Your task to perform on an android device: Open calendar and show me the first week of next month Image 0: 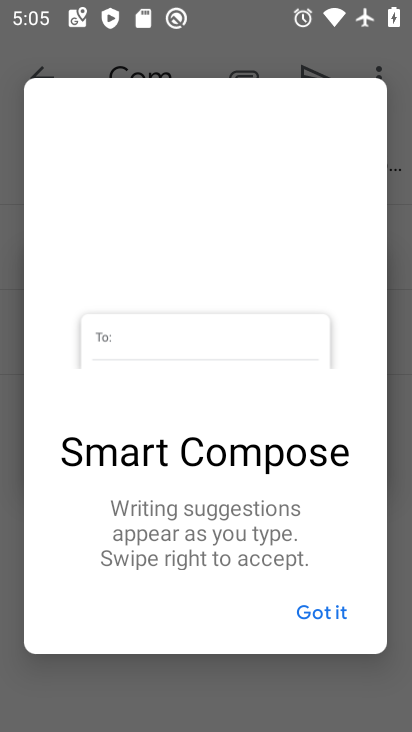
Step 0: press back button
Your task to perform on an android device: Open calendar and show me the first week of next month Image 1: 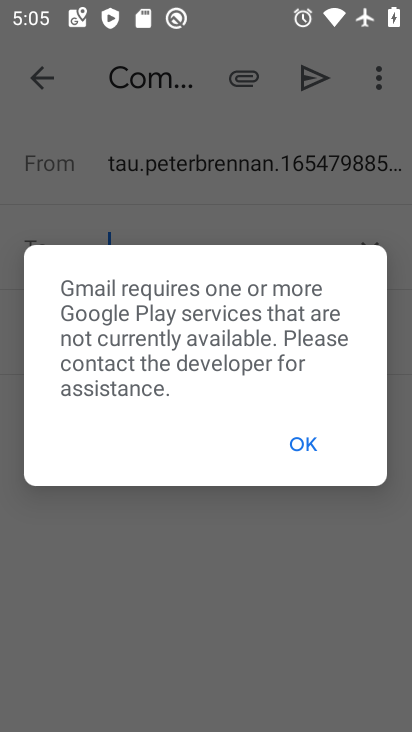
Step 1: press home button
Your task to perform on an android device: Open calendar and show me the first week of next month Image 2: 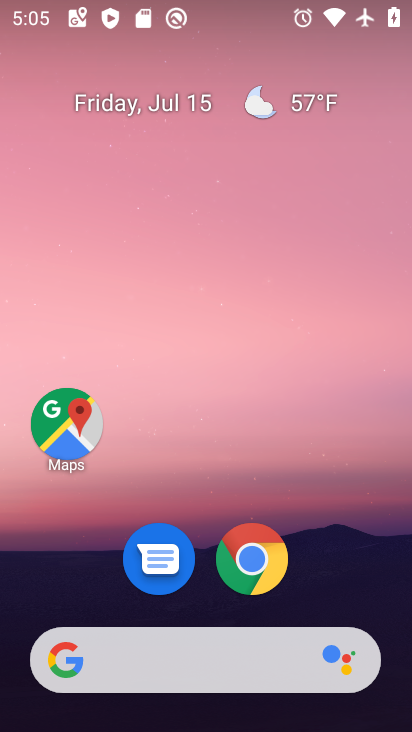
Step 2: drag from (81, 581) to (193, 60)
Your task to perform on an android device: Open calendar and show me the first week of next month Image 3: 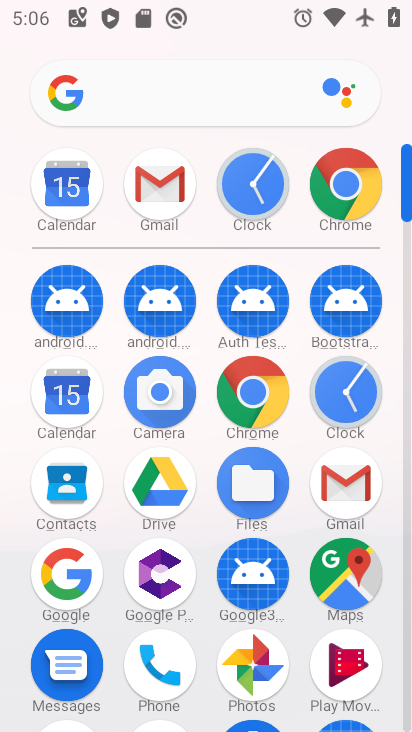
Step 3: click (57, 399)
Your task to perform on an android device: Open calendar and show me the first week of next month Image 4: 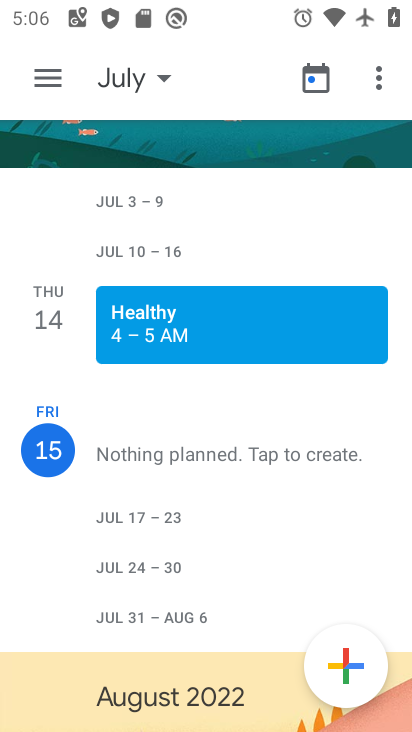
Step 4: click (141, 80)
Your task to perform on an android device: Open calendar and show me the first week of next month Image 5: 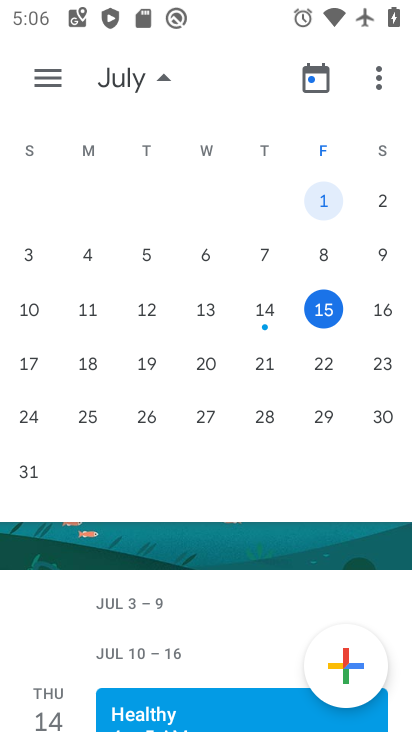
Step 5: task complete